Your task to perform on an android device: check android version Image 0: 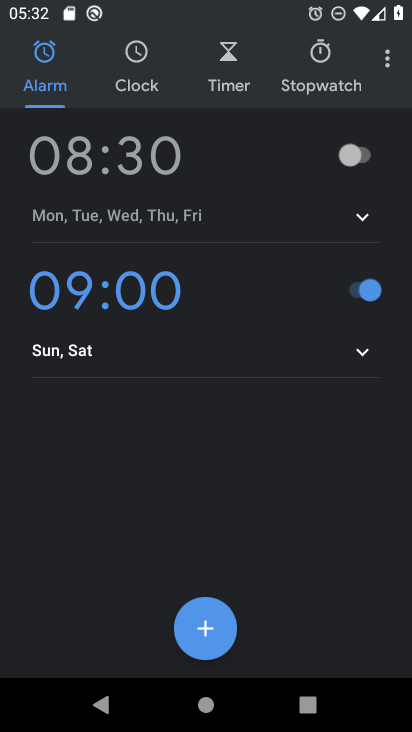
Step 0: press home button
Your task to perform on an android device: check android version Image 1: 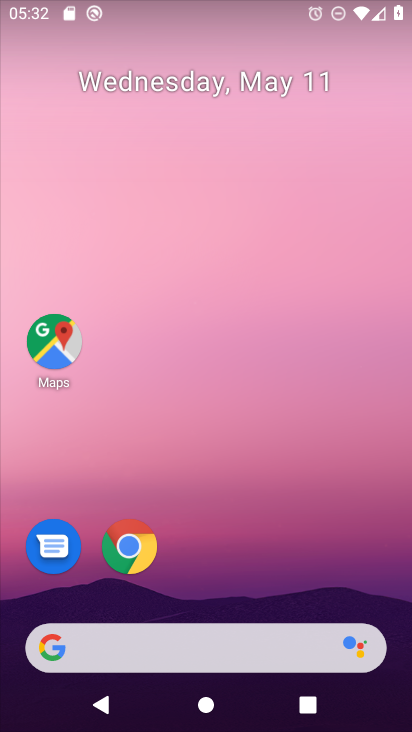
Step 1: drag from (312, 612) to (398, 14)
Your task to perform on an android device: check android version Image 2: 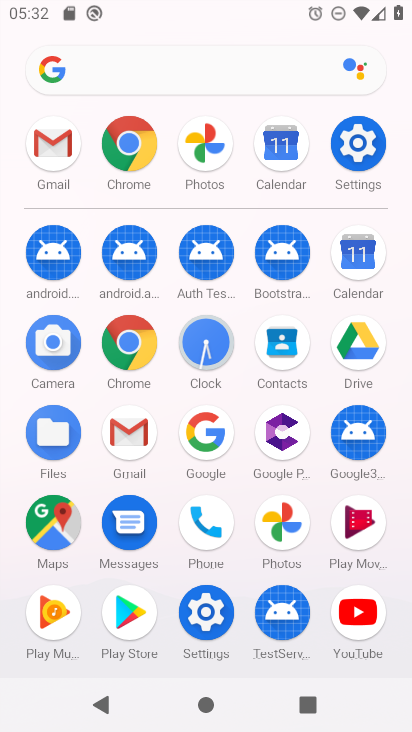
Step 2: click (363, 154)
Your task to perform on an android device: check android version Image 3: 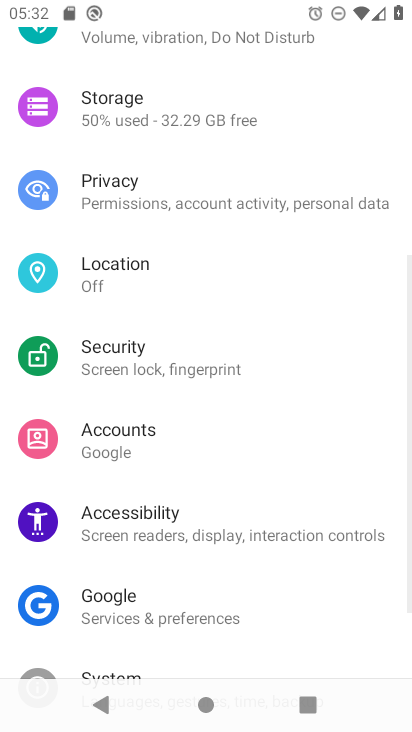
Step 3: drag from (333, 556) to (376, 9)
Your task to perform on an android device: check android version Image 4: 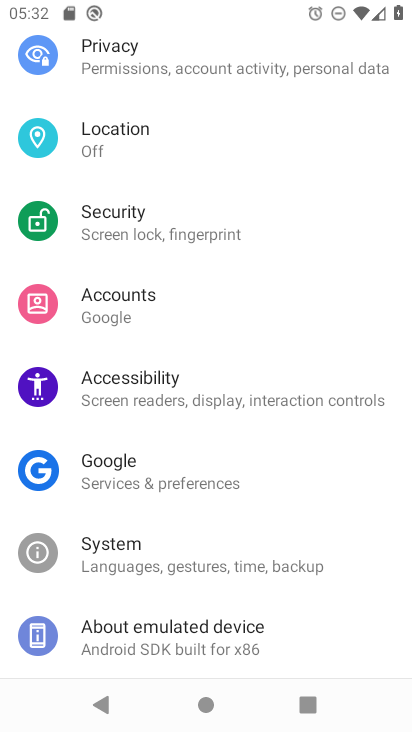
Step 4: click (297, 677)
Your task to perform on an android device: check android version Image 5: 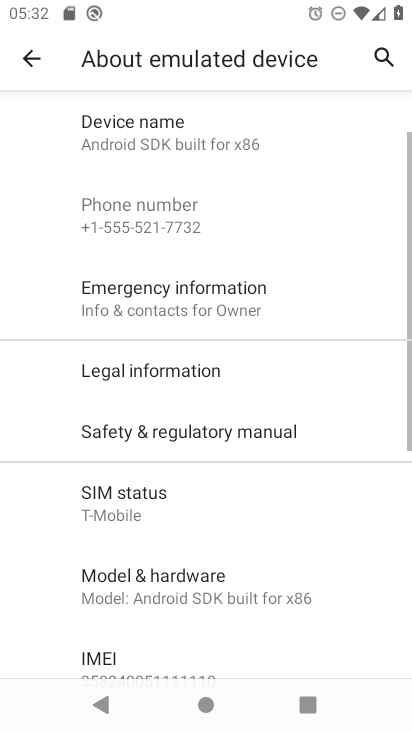
Step 5: drag from (304, 660) to (328, 328)
Your task to perform on an android device: check android version Image 6: 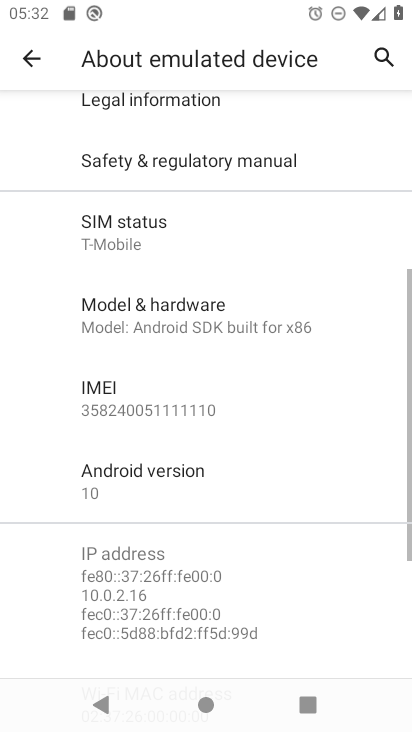
Step 6: click (227, 476)
Your task to perform on an android device: check android version Image 7: 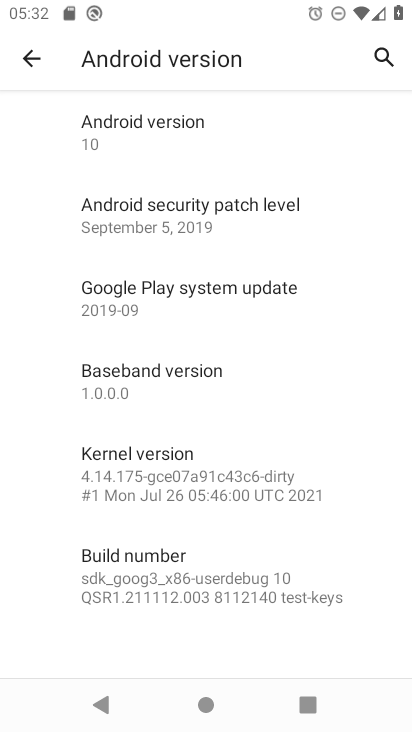
Step 7: task complete